Your task to perform on an android device: Open calendar and show me the first week of next month Image 0: 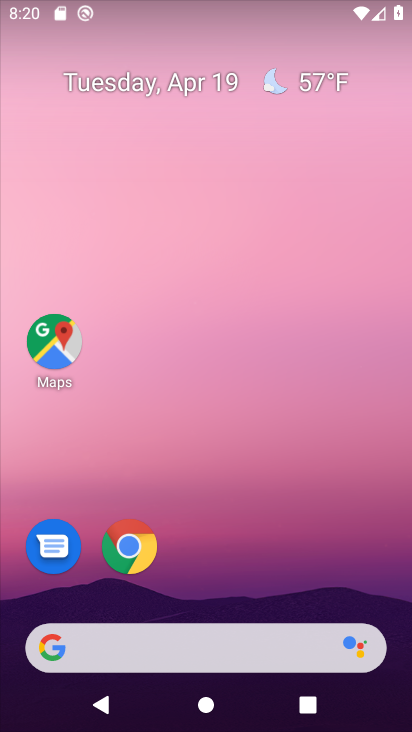
Step 0: drag from (224, 604) to (303, 0)
Your task to perform on an android device: Open calendar and show me the first week of next month Image 1: 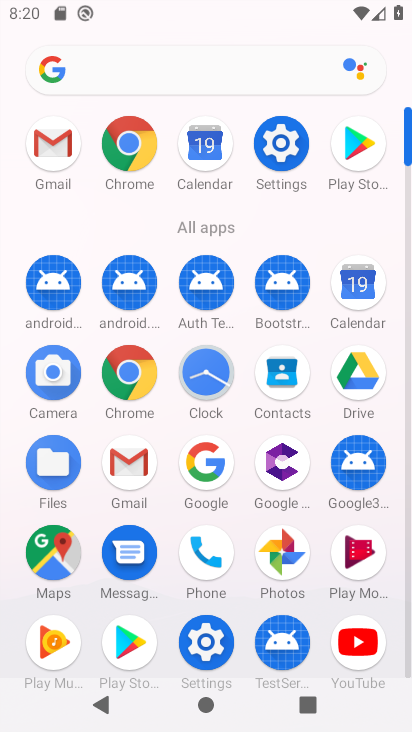
Step 1: click (349, 270)
Your task to perform on an android device: Open calendar and show me the first week of next month Image 2: 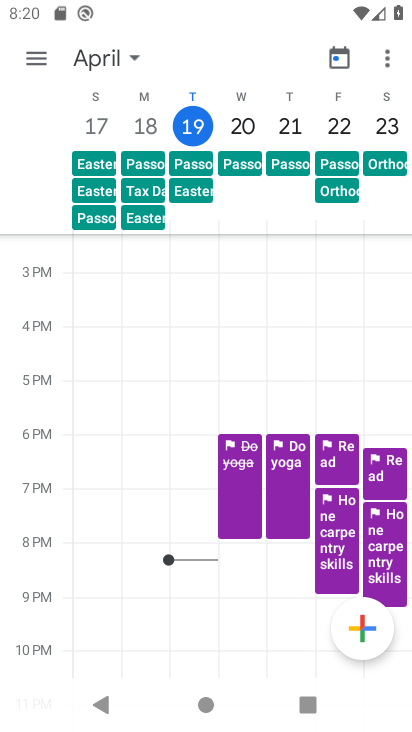
Step 2: task complete